Your task to perform on an android device: What's the weather today? Image 0: 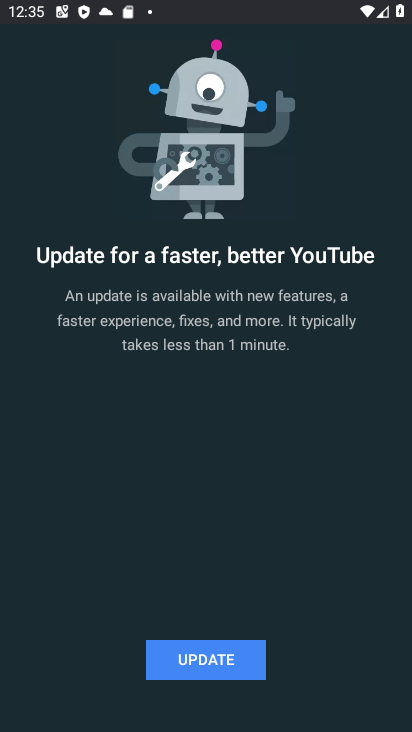
Step 0: task complete